Your task to perform on an android device: Open CNN.com Image 0: 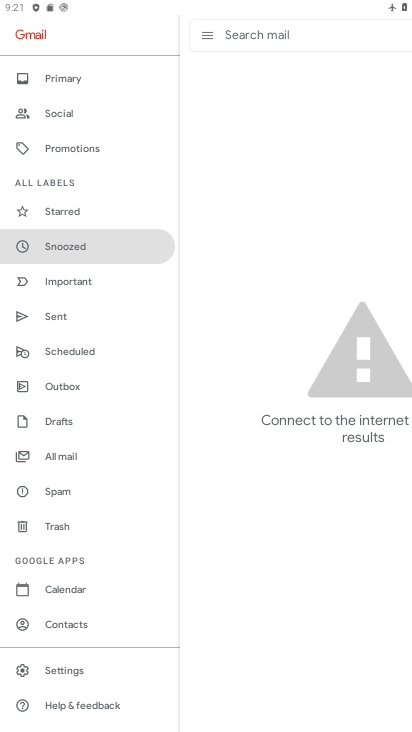
Step 0: press home button
Your task to perform on an android device: Open CNN.com Image 1: 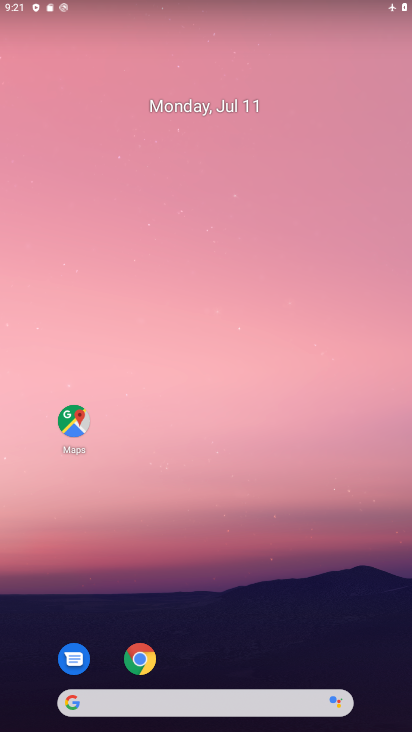
Step 1: click (146, 647)
Your task to perform on an android device: Open CNN.com Image 2: 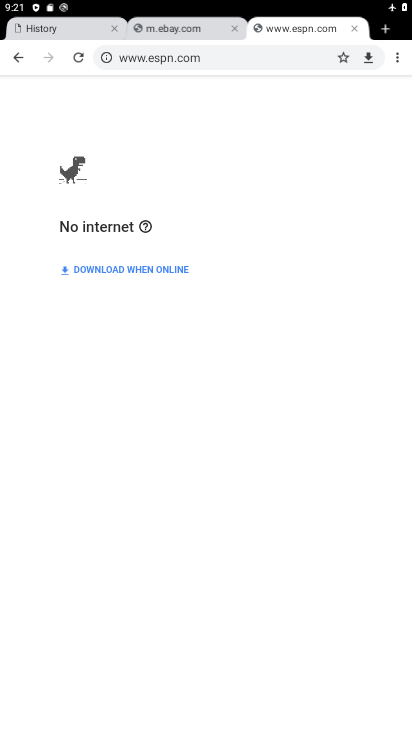
Step 2: click (378, 32)
Your task to perform on an android device: Open CNN.com Image 3: 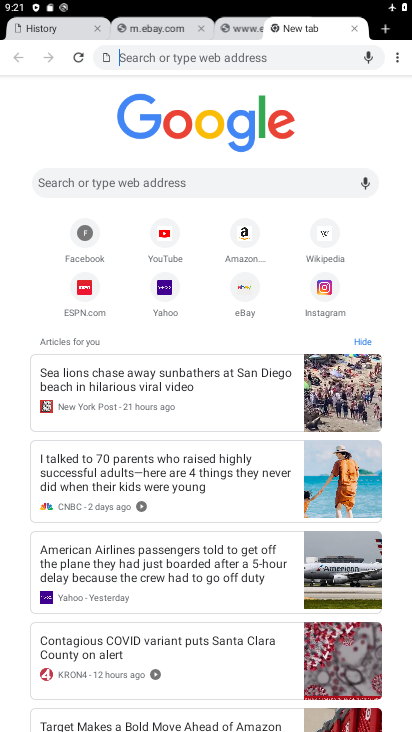
Step 3: click (384, 30)
Your task to perform on an android device: Open CNN.com Image 4: 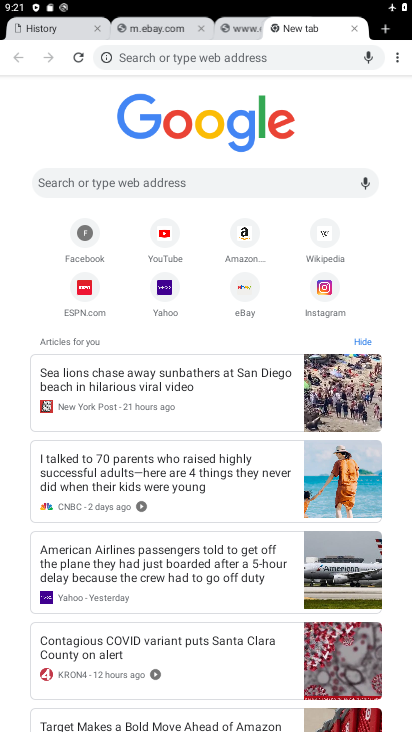
Step 4: click (185, 186)
Your task to perform on an android device: Open CNN.com Image 5: 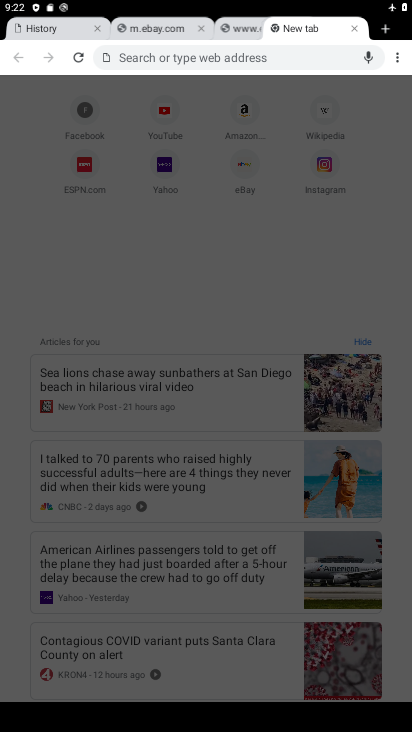
Step 5: type "CNN.com"
Your task to perform on an android device: Open CNN.com Image 6: 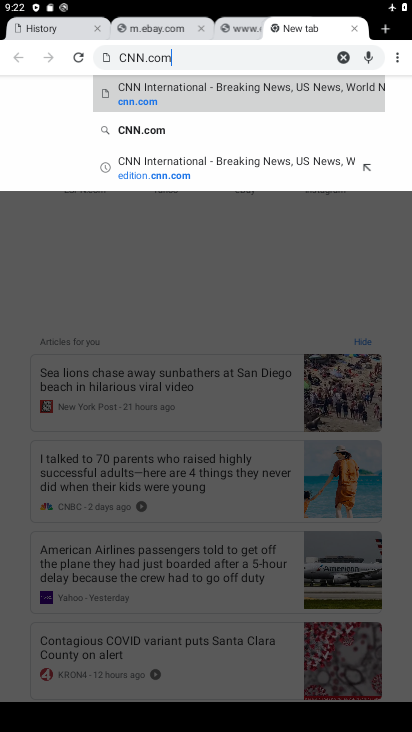
Step 6: type "CNN.com"
Your task to perform on an android device: Open CNN.com Image 7: 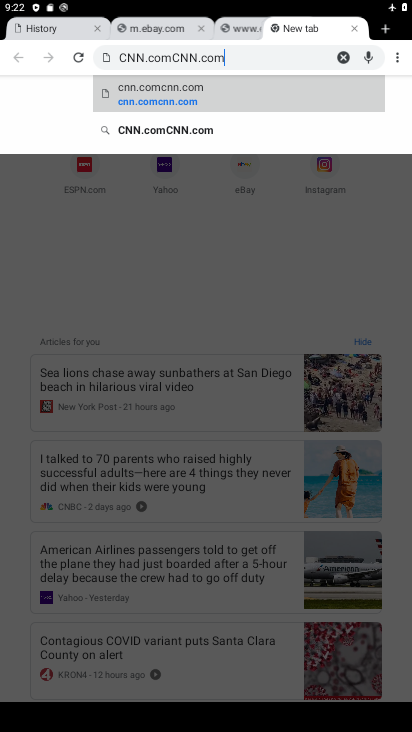
Step 7: click (213, 90)
Your task to perform on an android device: Open CNN.com Image 8: 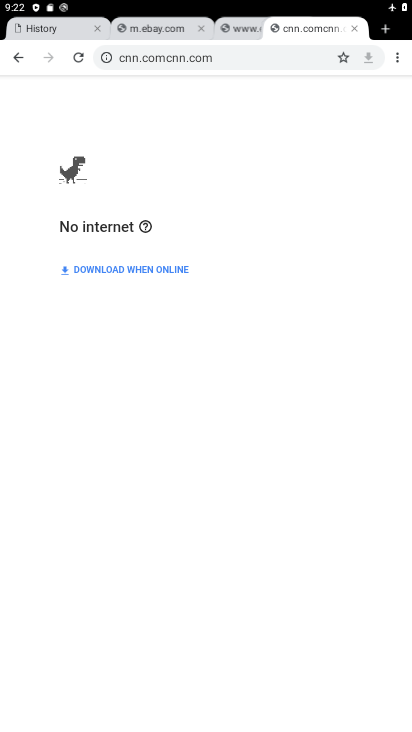
Step 8: task complete